Your task to perform on an android device: open a bookmark in the chrome app Image 0: 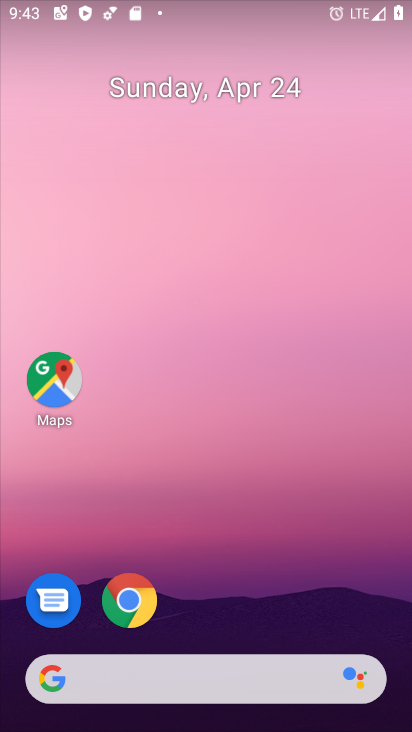
Step 0: click (139, 591)
Your task to perform on an android device: open a bookmark in the chrome app Image 1: 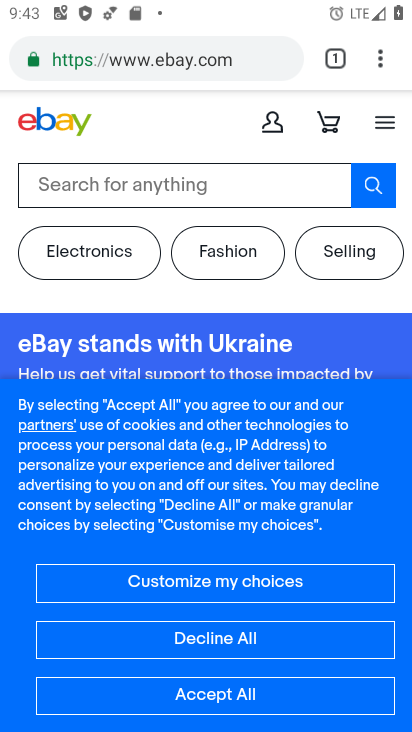
Step 1: click (382, 71)
Your task to perform on an android device: open a bookmark in the chrome app Image 2: 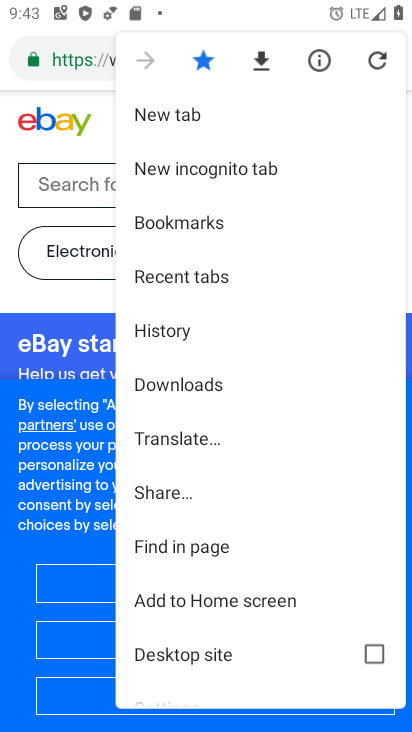
Step 2: click (200, 223)
Your task to perform on an android device: open a bookmark in the chrome app Image 3: 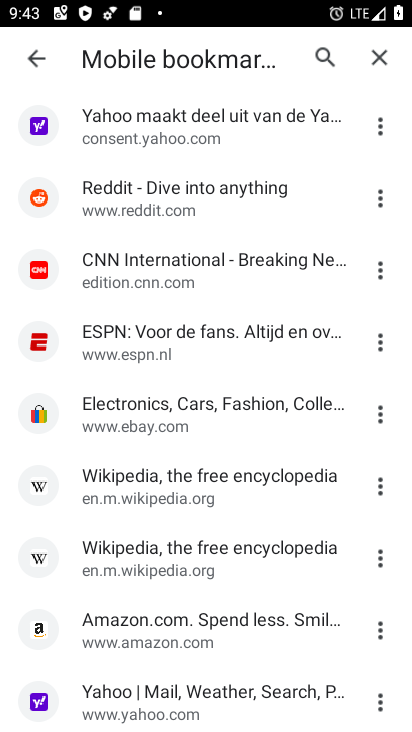
Step 3: click (137, 410)
Your task to perform on an android device: open a bookmark in the chrome app Image 4: 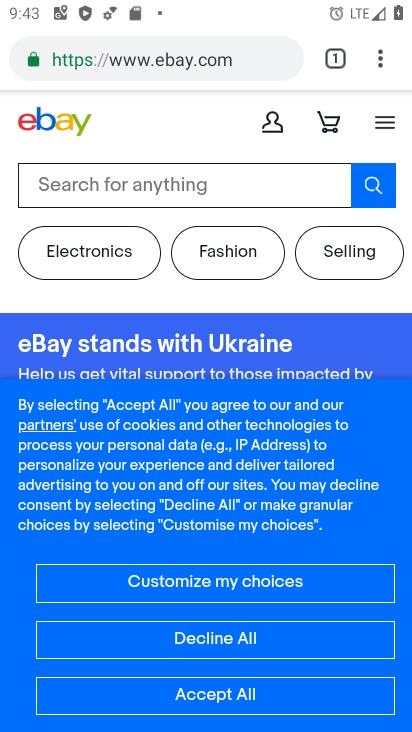
Step 4: task complete